Your task to perform on an android device: Go to settings Image 0: 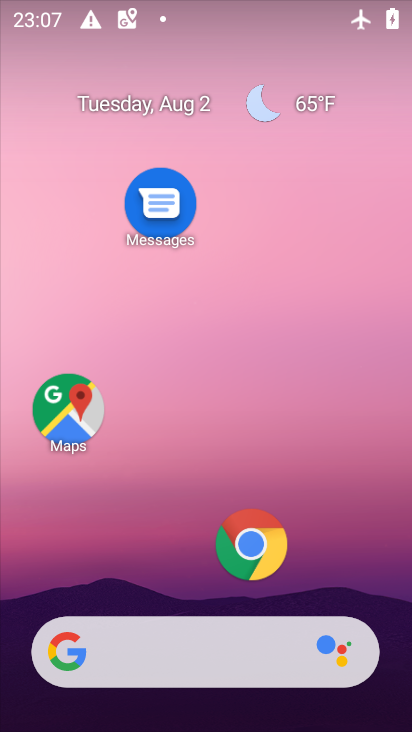
Step 0: drag from (184, 582) to (209, 89)
Your task to perform on an android device: Go to settings Image 1: 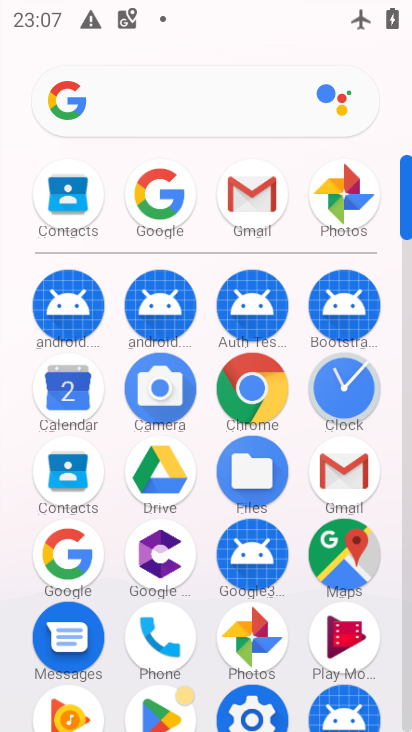
Step 1: click (243, 706)
Your task to perform on an android device: Go to settings Image 2: 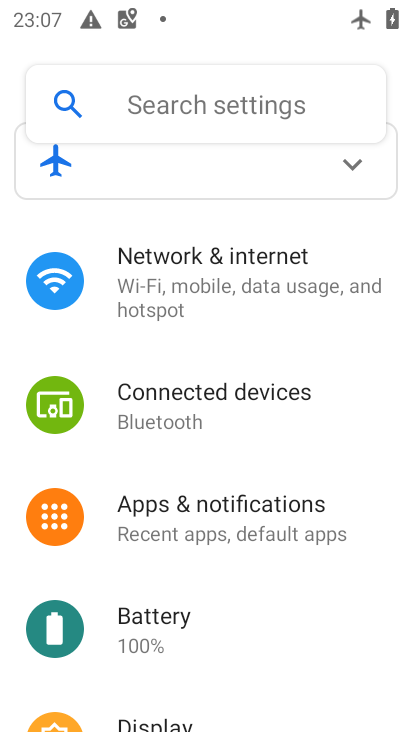
Step 2: task complete